Your task to perform on an android device: open app "Reddit" Image 0: 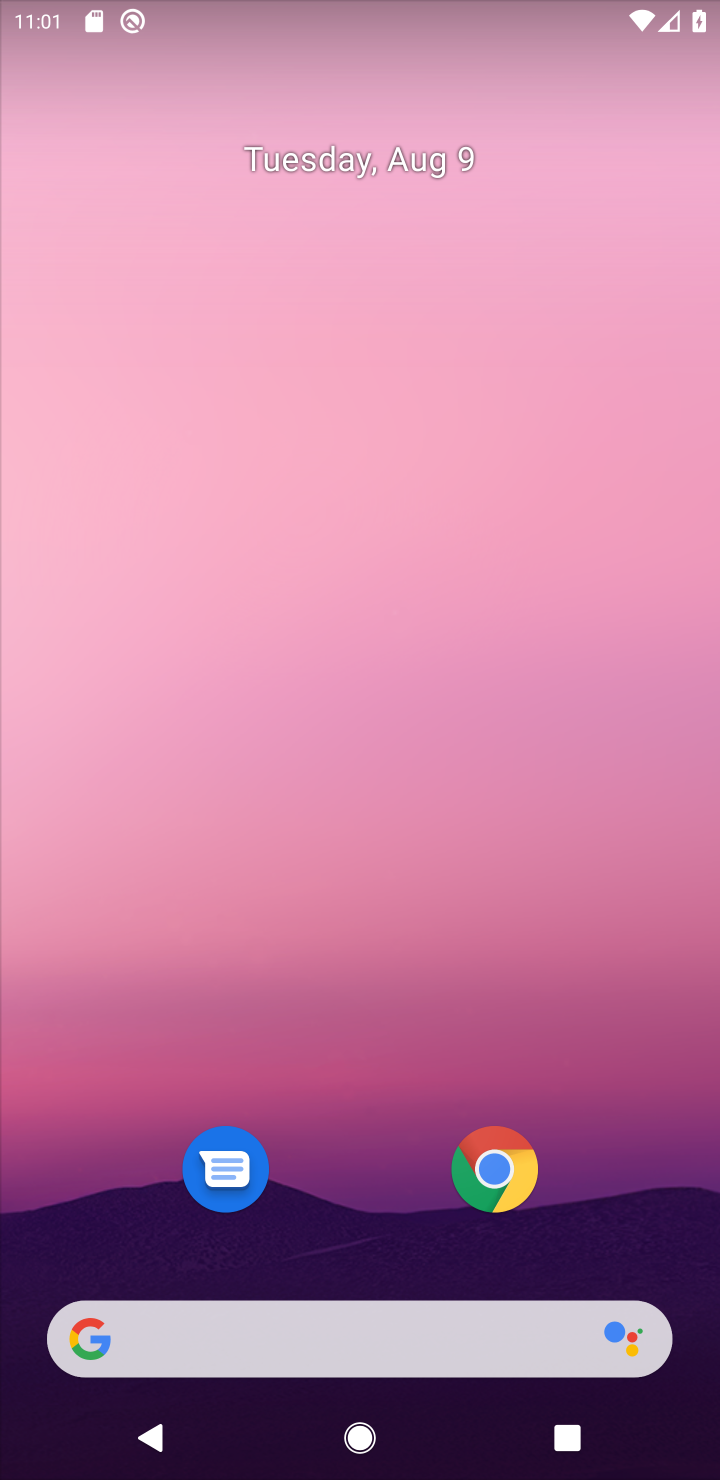
Step 0: drag from (647, 1228) to (606, 119)
Your task to perform on an android device: open app "Reddit" Image 1: 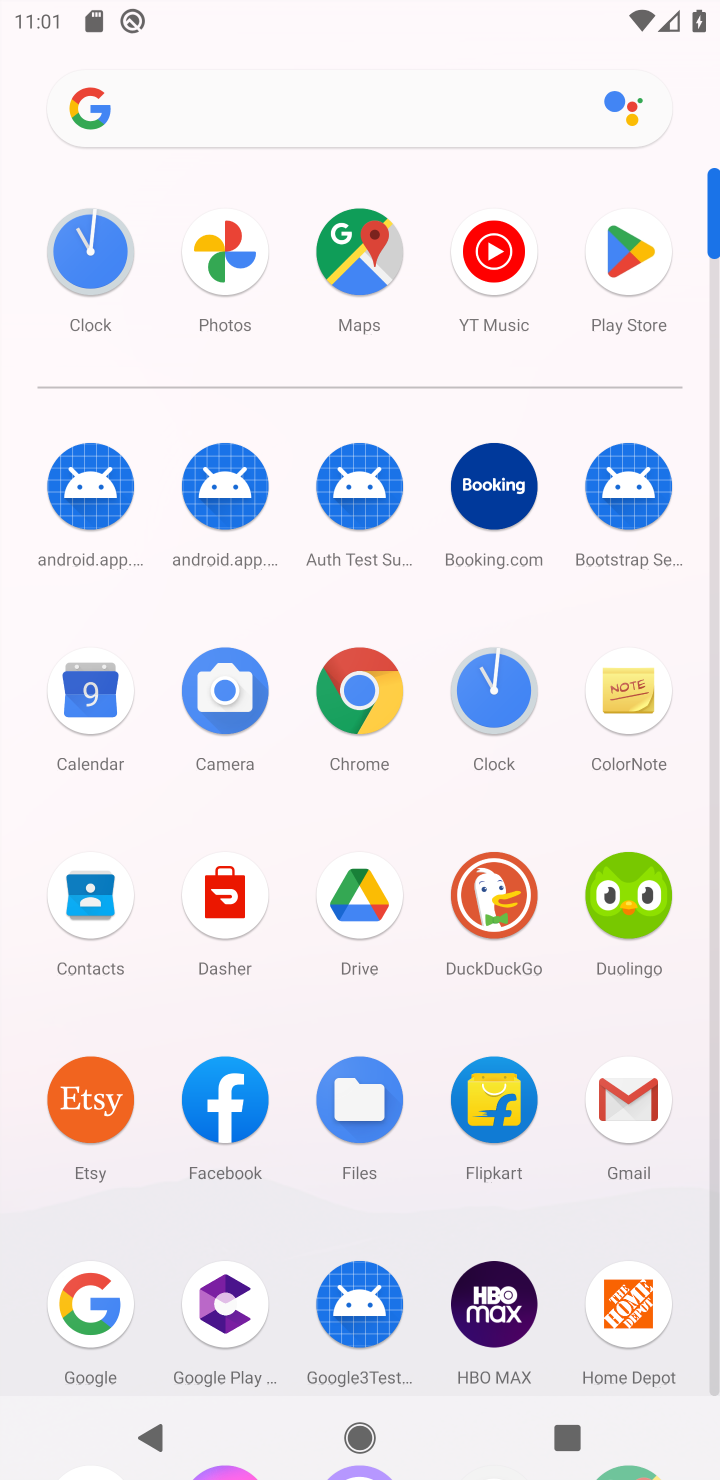
Step 1: click (629, 242)
Your task to perform on an android device: open app "Reddit" Image 2: 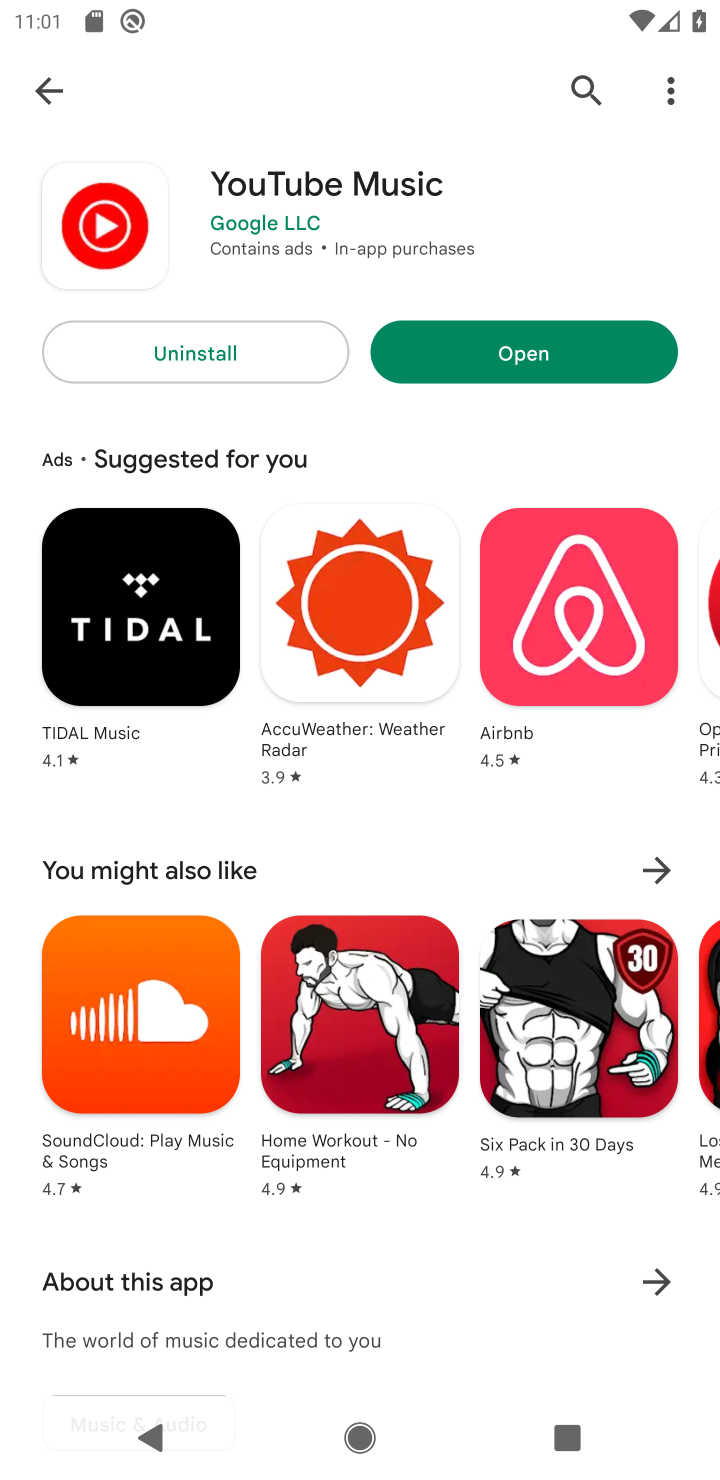
Step 2: click (574, 82)
Your task to perform on an android device: open app "Reddit" Image 3: 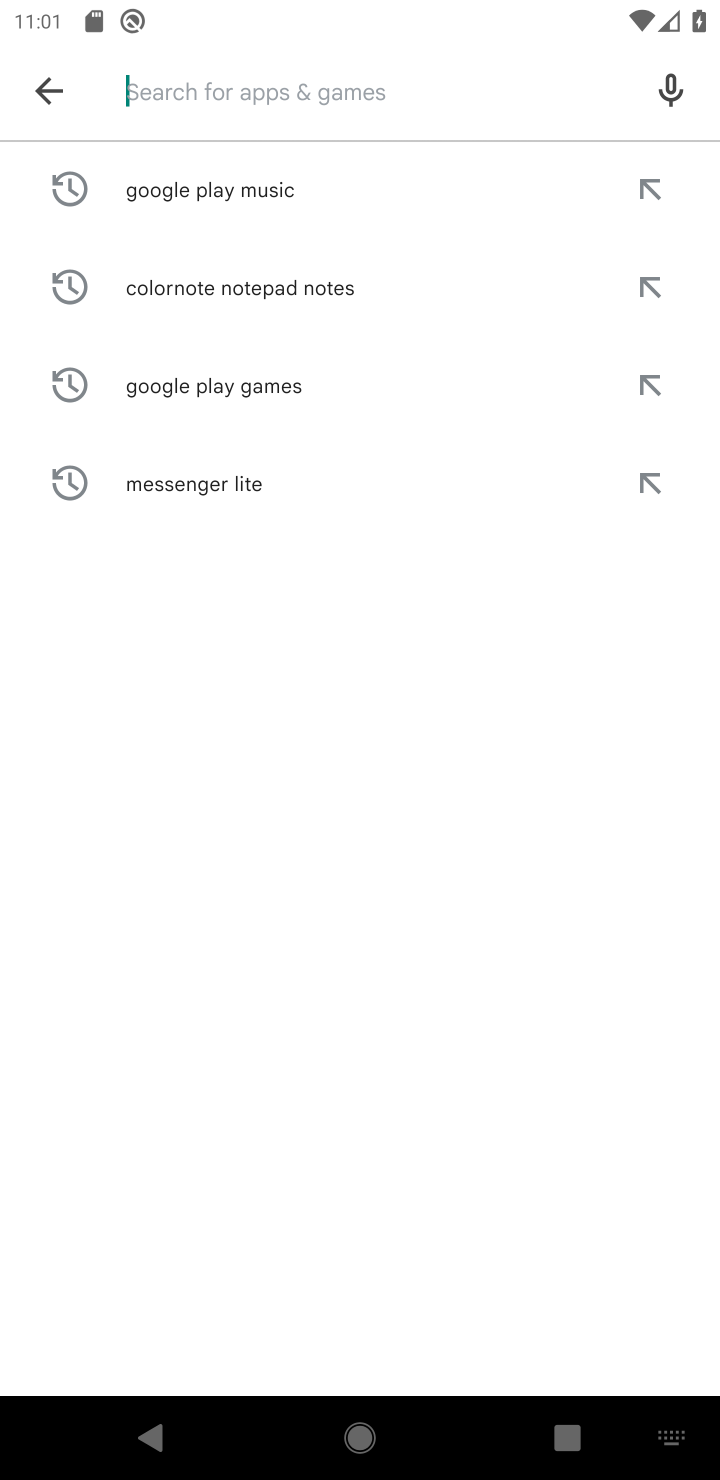
Step 3: type "reddit"
Your task to perform on an android device: open app "Reddit" Image 4: 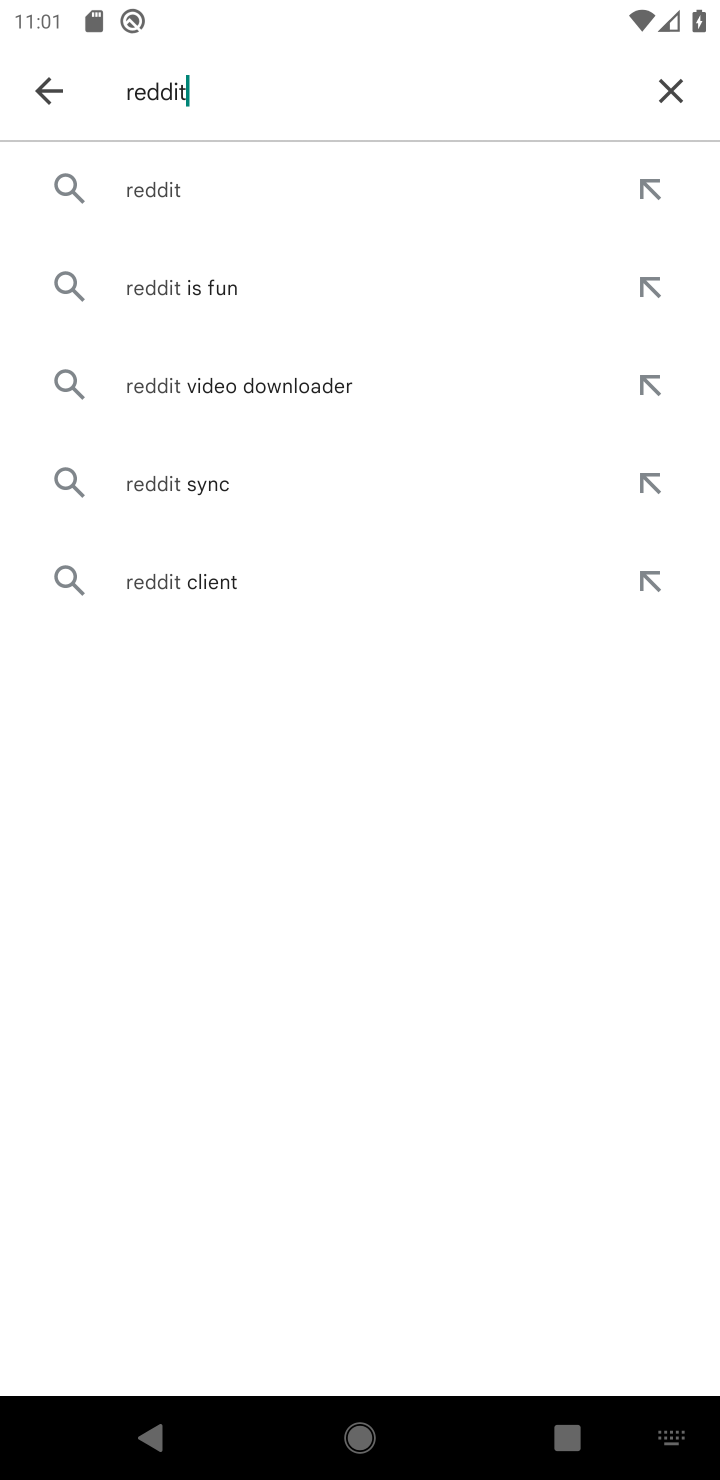
Step 4: click (193, 184)
Your task to perform on an android device: open app "Reddit" Image 5: 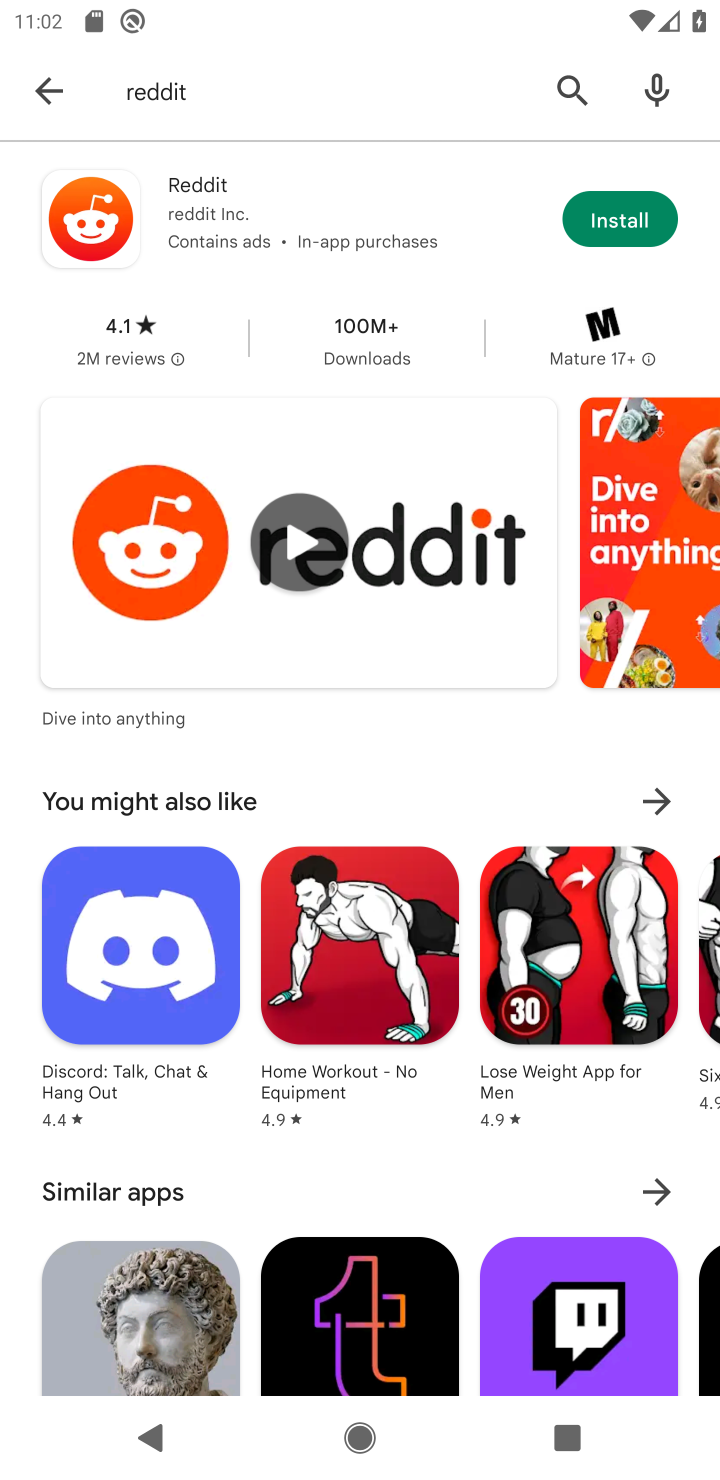
Step 5: task complete